Your task to perform on an android device: check android version Image 0: 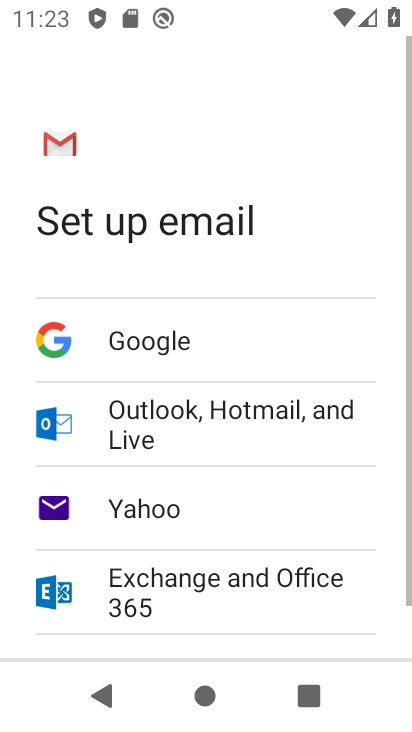
Step 0: press home button
Your task to perform on an android device: check android version Image 1: 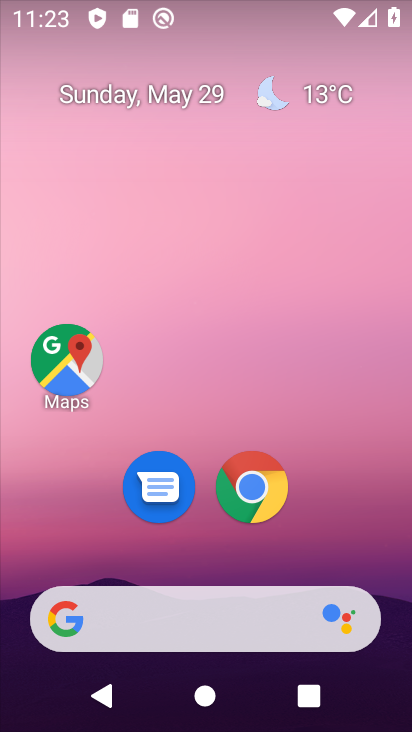
Step 1: drag from (380, 562) to (347, 207)
Your task to perform on an android device: check android version Image 2: 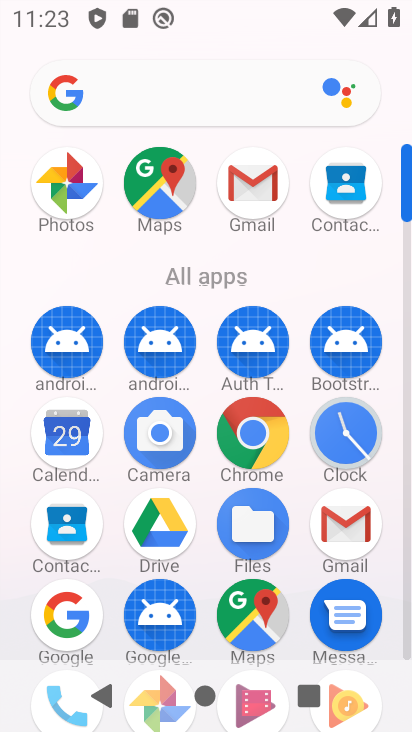
Step 2: drag from (290, 298) to (310, 54)
Your task to perform on an android device: check android version Image 3: 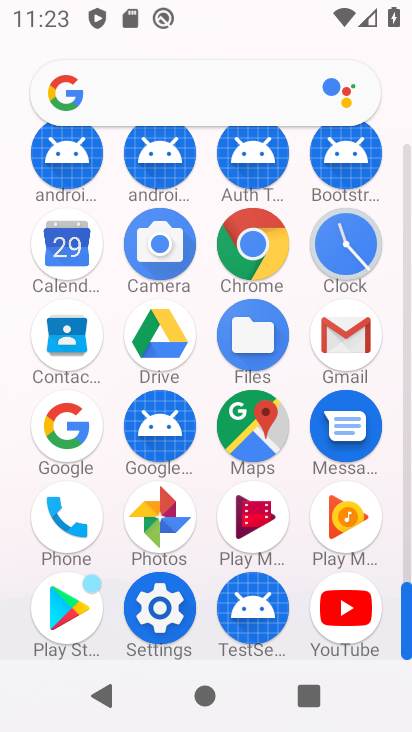
Step 3: click (171, 599)
Your task to perform on an android device: check android version Image 4: 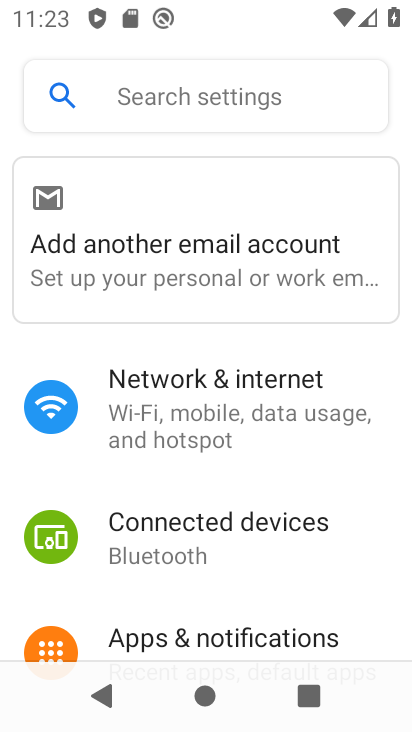
Step 4: drag from (335, 620) to (300, 316)
Your task to perform on an android device: check android version Image 5: 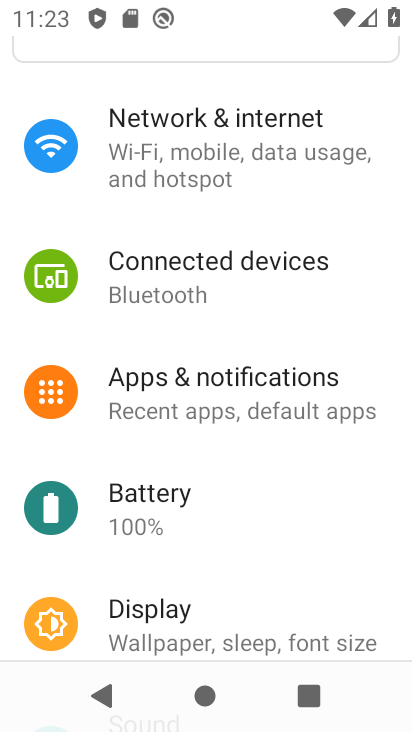
Step 5: drag from (294, 646) to (279, 313)
Your task to perform on an android device: check android version Image 6: 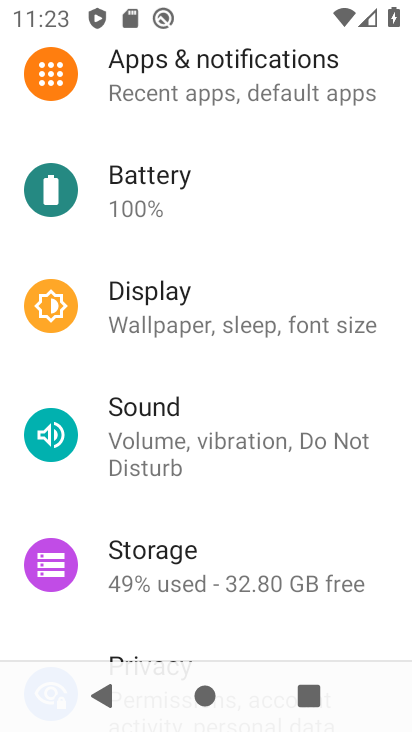
Step 6: drag from (263, 611) to (276, 314)
Your task to perform on an android device: check android version Image 7: 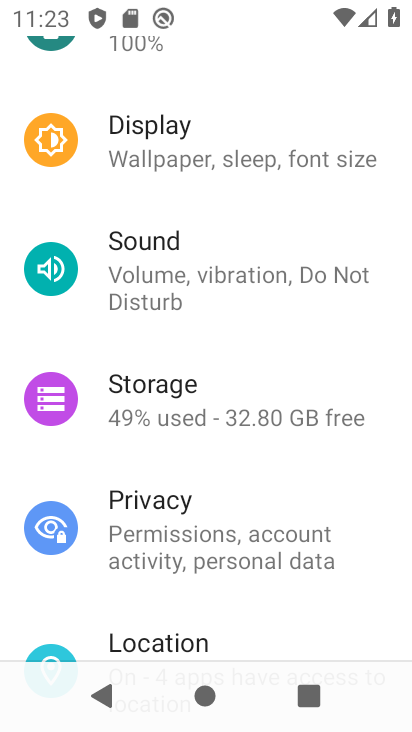
Step 7: drag from (255, 652) to (251, 318)
Your task to perform on an android device: check android version Image 8: 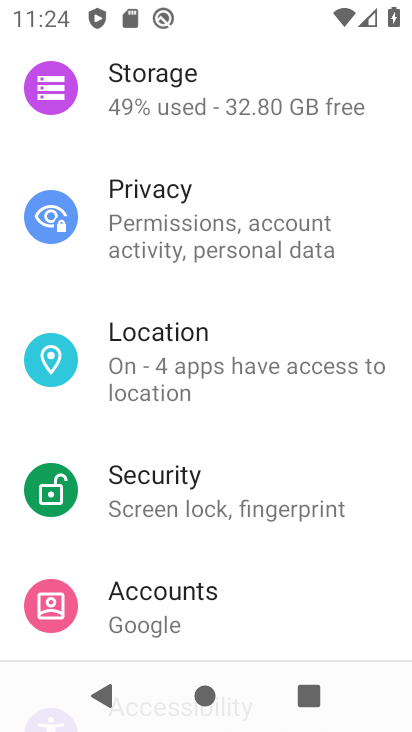
Step 8: drag from (249, 618) to (256, 326)
Your task to perform on an android device: check android version Image 9: 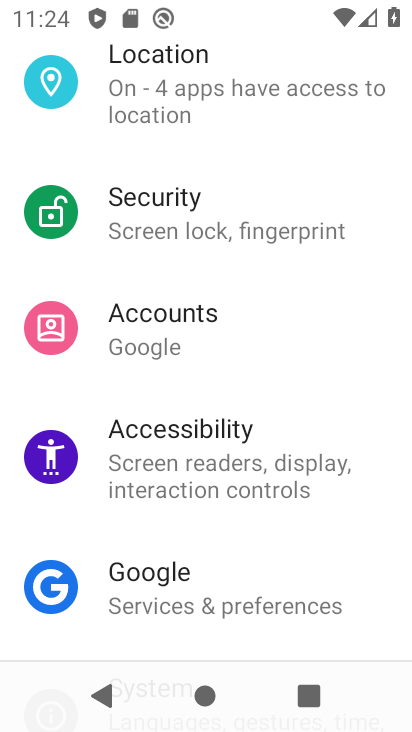
Step 9: drag from (263, 627) to (253, 387)
Your task to perform on an android device: check android version Image 10: 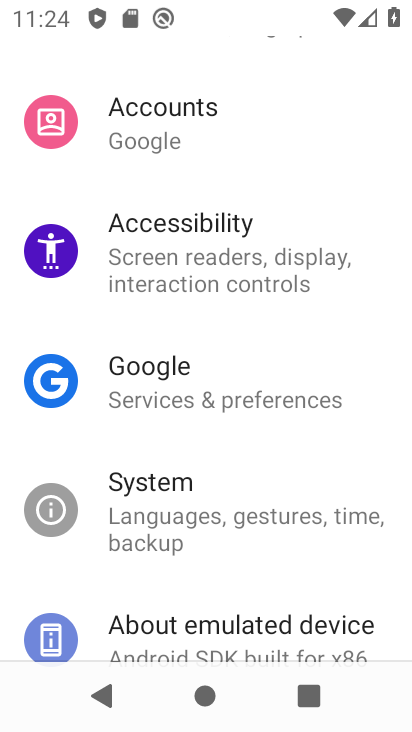
Step 10: drag from (233, 643) to (250, 463)
Your task to perform on an android device: check android version Image 11: 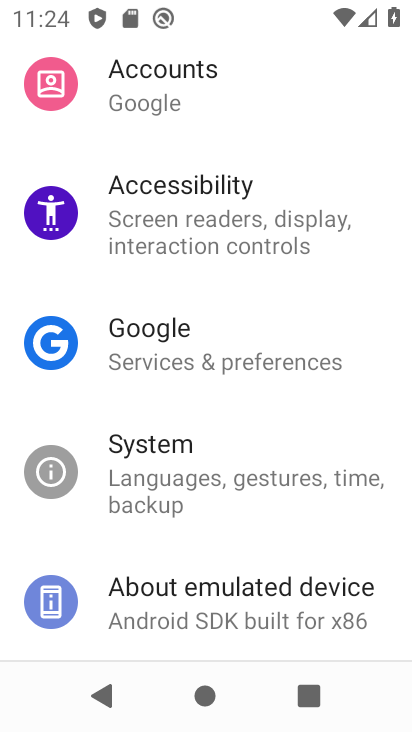
Step 11: click (222, 612)
Your task to perform on an android device: check android version Image 12: 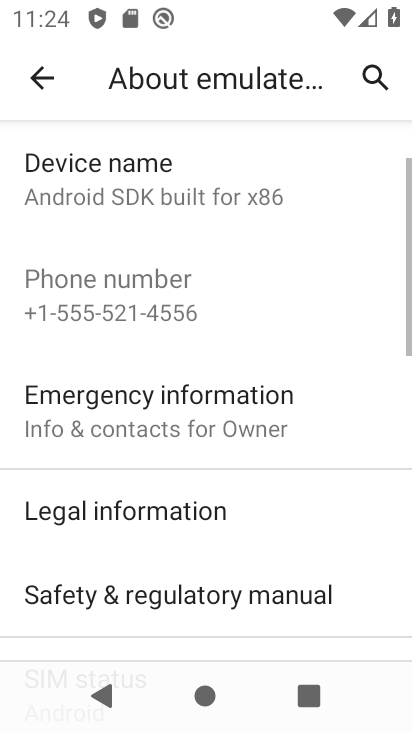
Step 12: drag from (236, 600) to (237, 303)
Your task to perform on an android device: check android version Image 13: 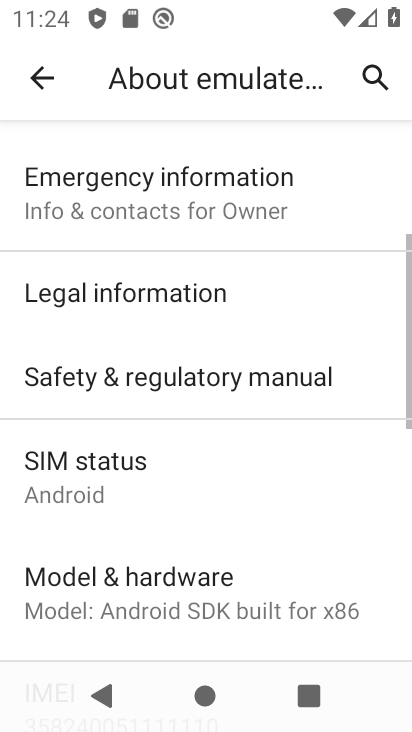
Step 13: drag from (223, 595) to (207, 382)
Your task to perform on an android device: check android version Image 14: 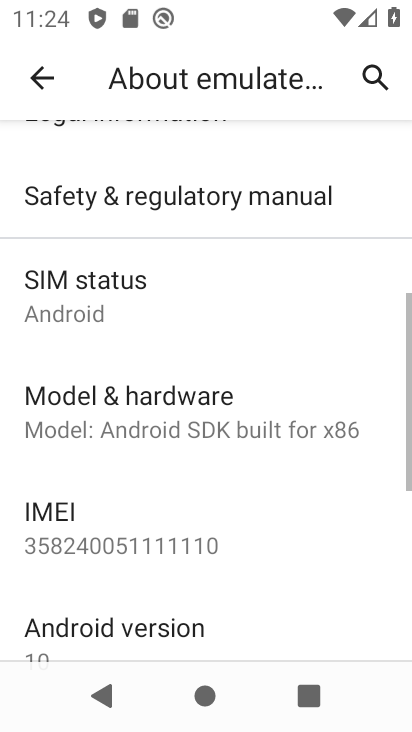
Step 14: click (183, 625)
Your task to perform on an android device: check android version Image 15: 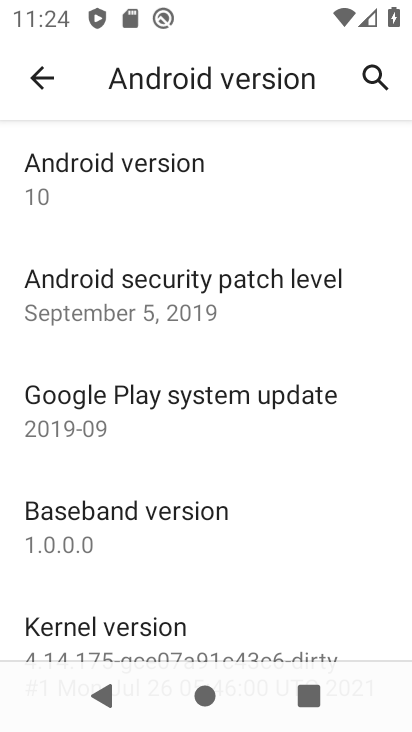
Step 15: task complete